Your task to perform on an android device: set the stopwatch Image 0: 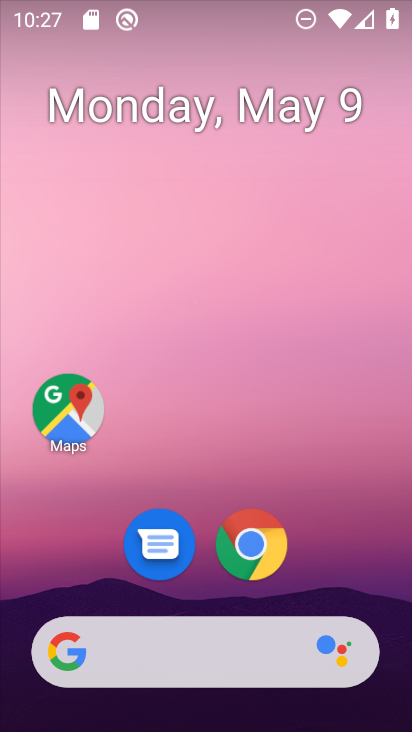
Step 0: drag from (334, 571) to (199, 168)
Your task to perform on an android device: set the stopwatch Image 1: 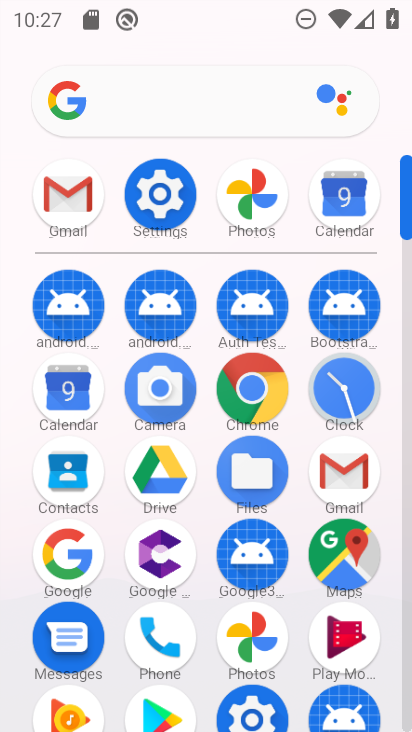
Step 1: click (344, 374)
Your task to perform on an android device: set the stopwatch Image 2: 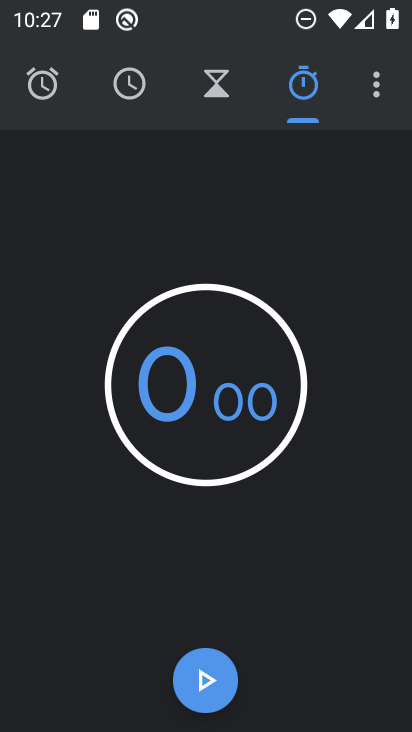
Step 2: task complete